Your task to perform on an android device: open app "Mercado Libre" (install if not already installed) Image 0: 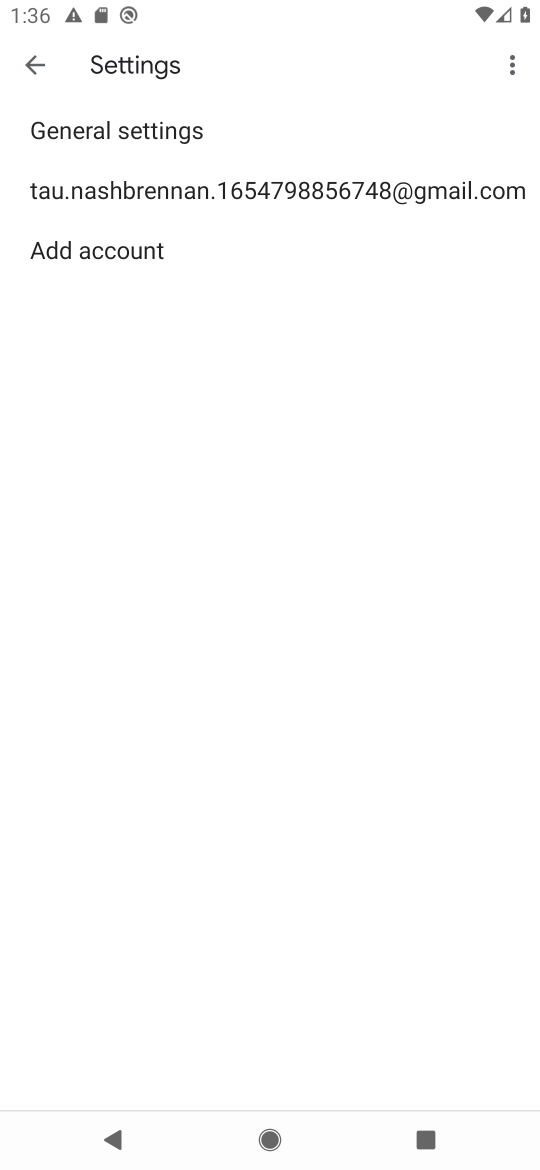
Step 0: press home button
Your task to perform on an android device: open app "Mercado Libre" (install if not already installed) Image 1: 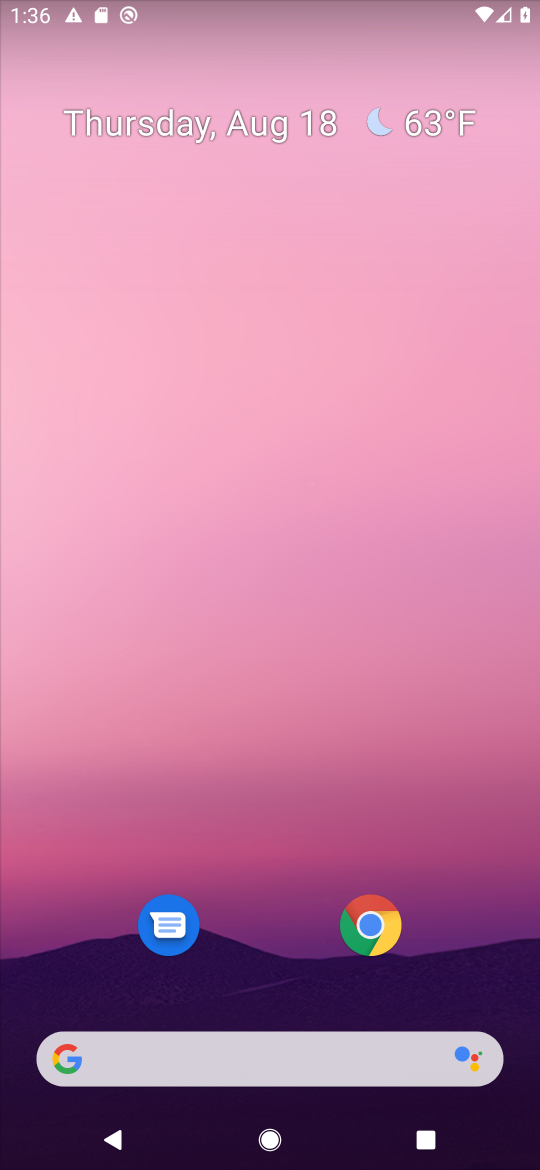
Step 1: drag from (243, 994) to (300, 199)
Your task to perform on an android device: open app "Mercado Libre" (install if not already installed) Image 2: 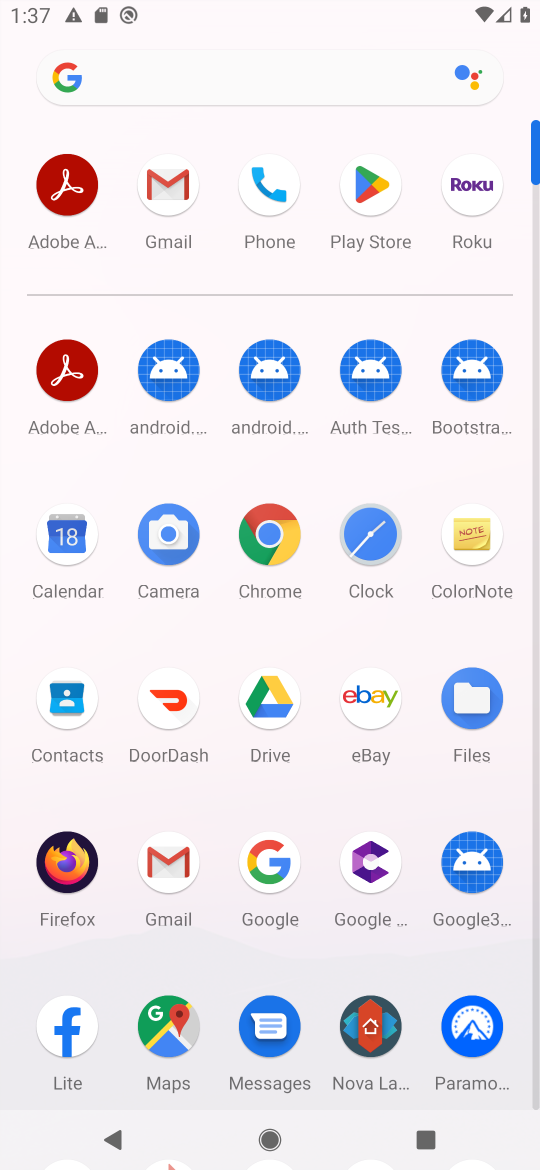
Step 2: click (369, 176)
Your task to perform on an android device: open app "Mercado Libre" (install if not already installed) Image 3: 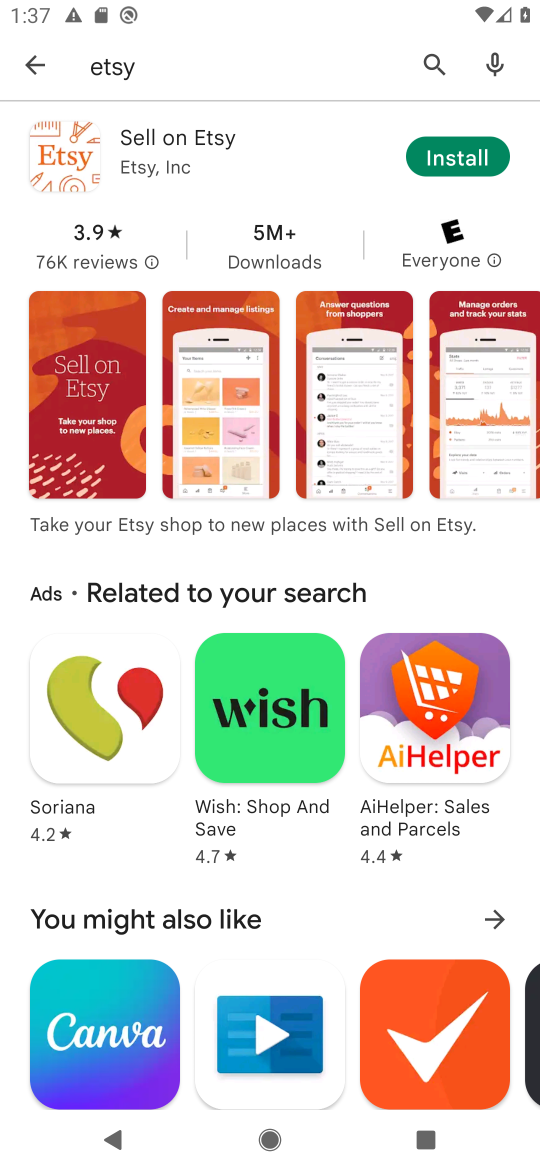
Step 3: click (39, 66)
Your task to perform on an android device: open app "Mercado Libre" (install if not already installed) Image 4: 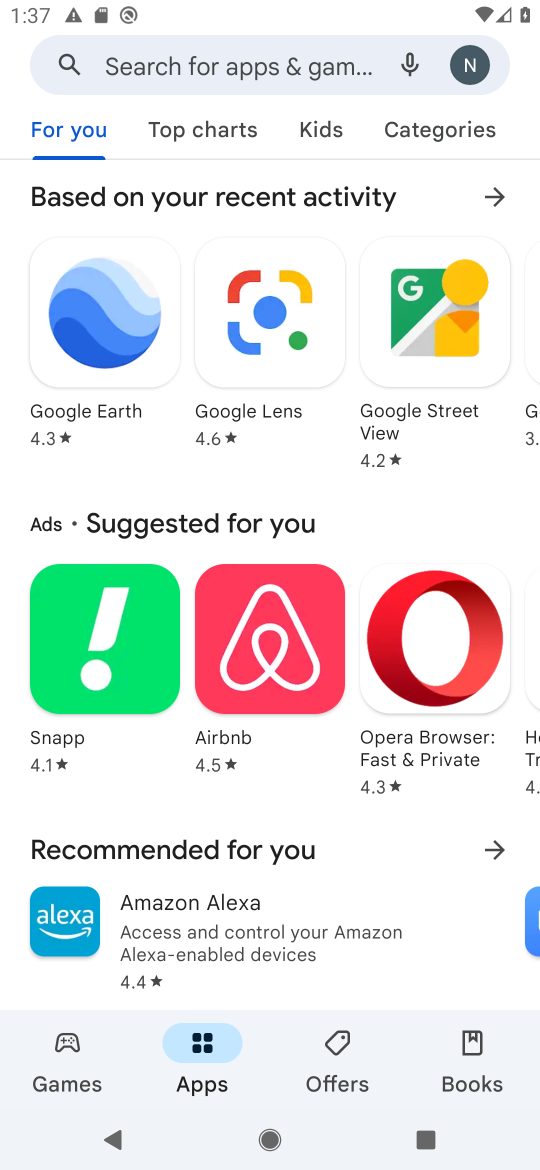
Step 4: click (217, 66)
Your task to perform on an android device: open app "Mercado Libre" (install if not already installed) Image 5: 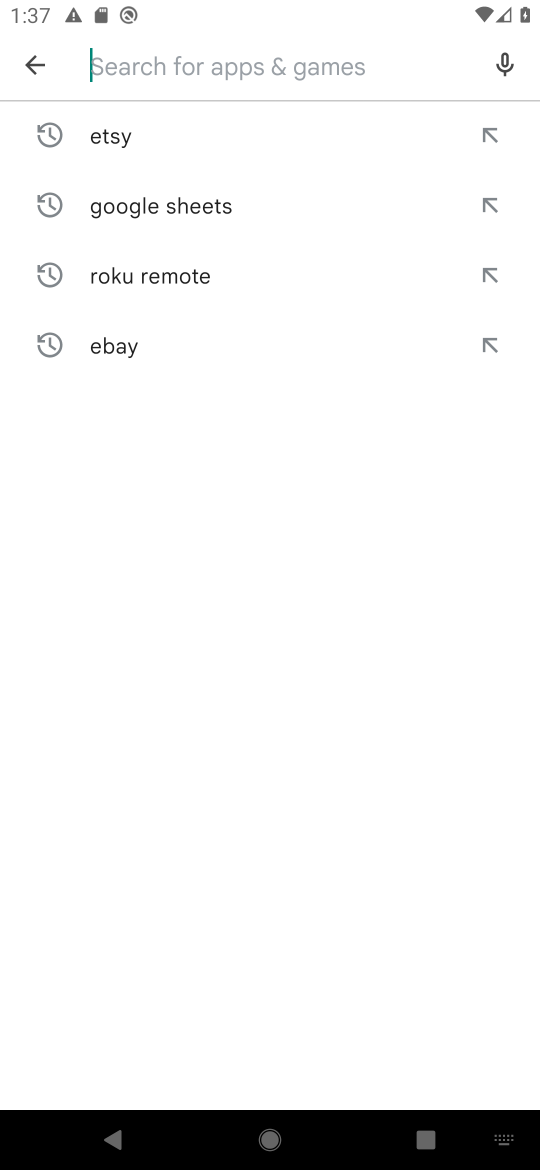
Step 5: type "Mercado Libre"
Your task to perform on an android device: open app "Mercado Libre" (install if not already installed) Image 6: 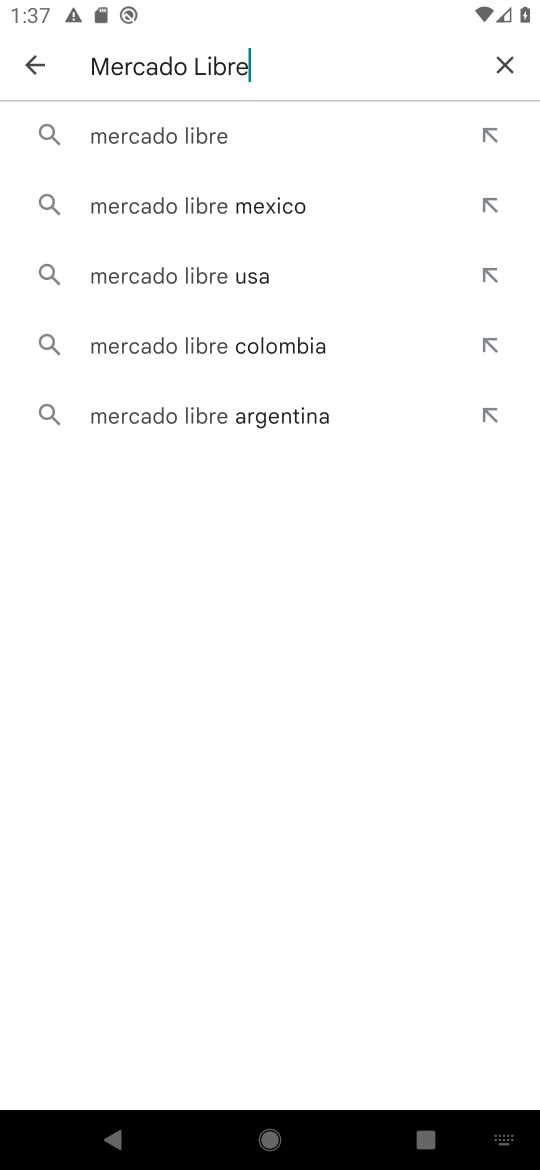
Step 6: click (207, 130)
Your task to perform on an android device: open app "Mercado Libre" (install if not already installed) Image 7: 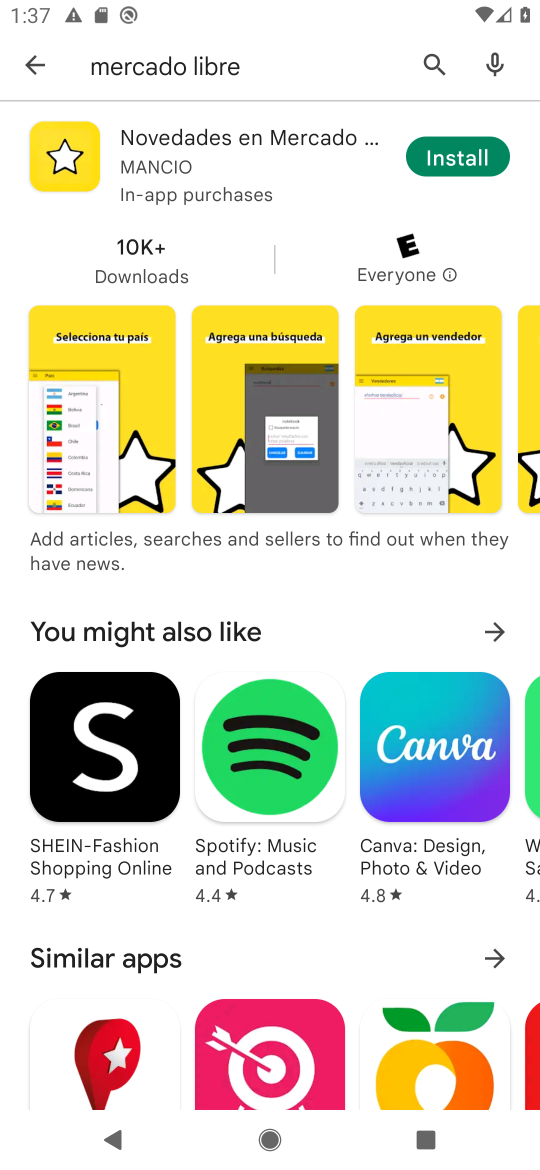
Step 7: click (450, 148)
Your task to perform on an android device: open app "Mercado Libre" (install if not already installed) Image 8: 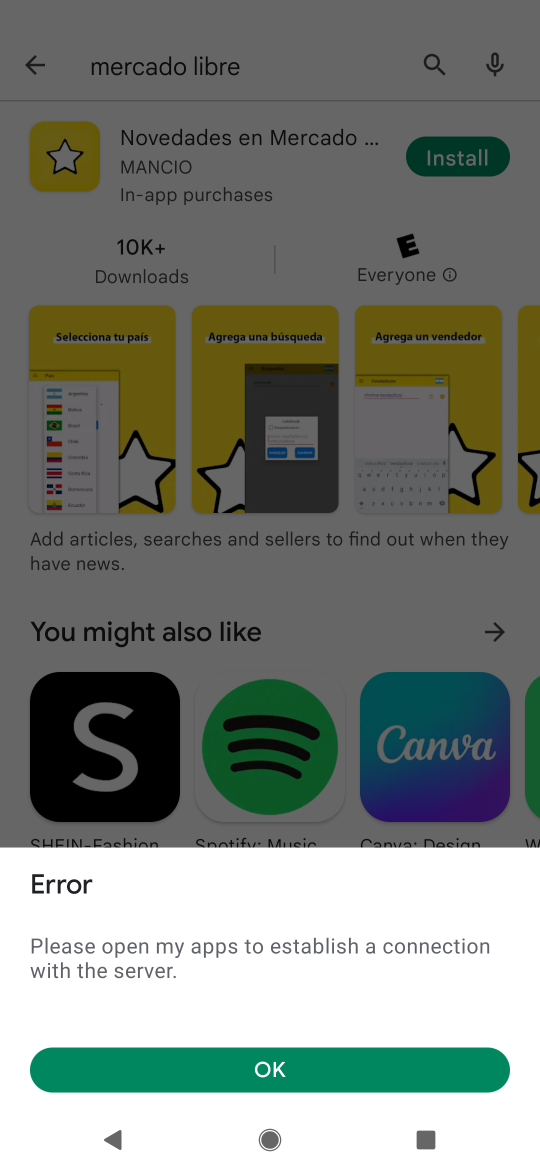
Step 8: task complete